Your task to perform on an android device: snooze an email in the gmail app Image 0: 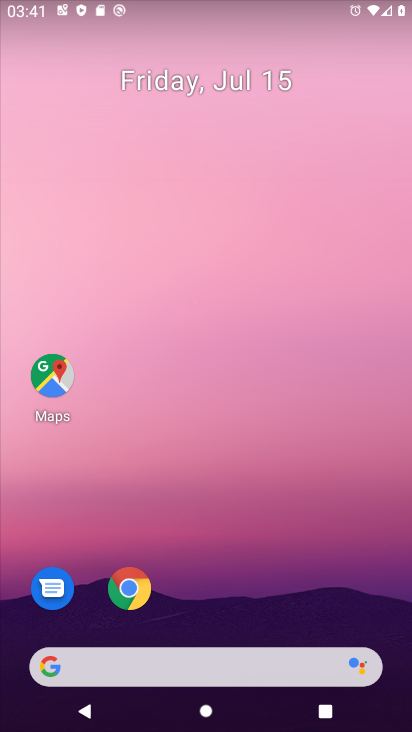
Step 0: drag from (206, 658) to (187, 184)
Your task to perform on an android device: snooze an email in the gmail app Image 1: 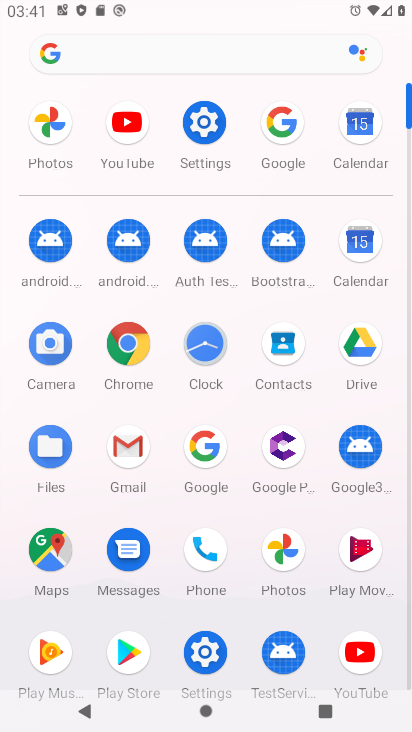
Step 1: click (129, 447)
Your task to perform on an android device: snooze an email in the gmail app Image 2: 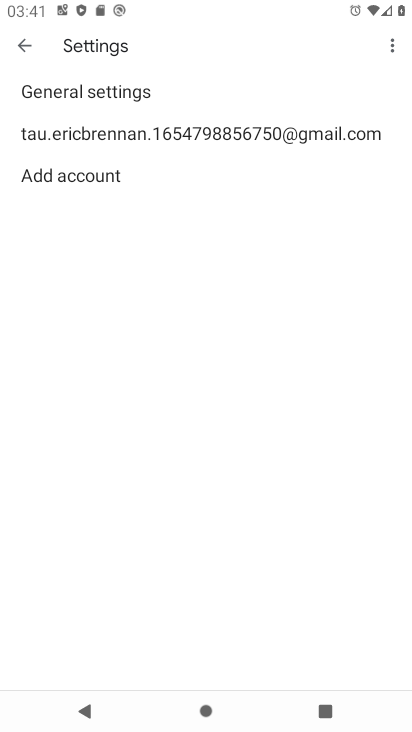
Step 2: press back button
Your task to perform on an android device: snooze an email in the gmail app Image 3: 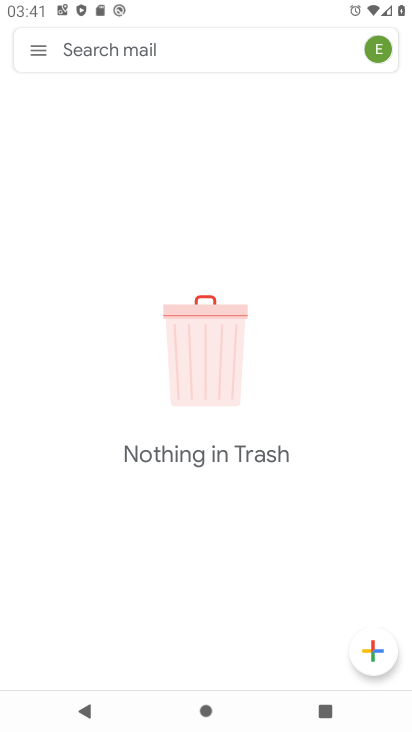
Step 3: click (33, 49)
Your task to perform on an android device: snooze an email in the gmail app Image 4: 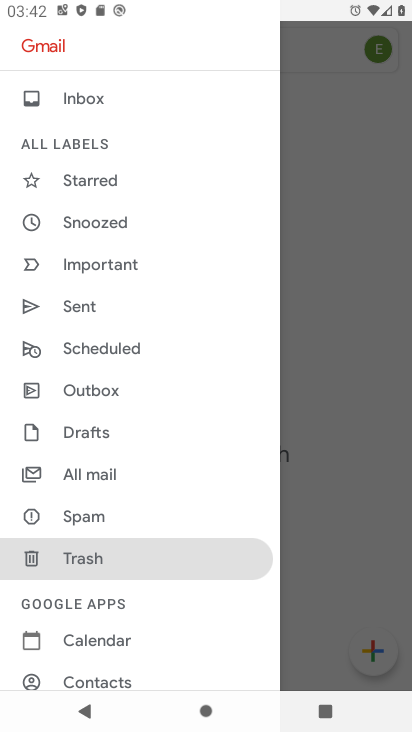
Step 4: click (66, 90)
Your task to perform on an android device: snooze an email in the gmail app Image 5: 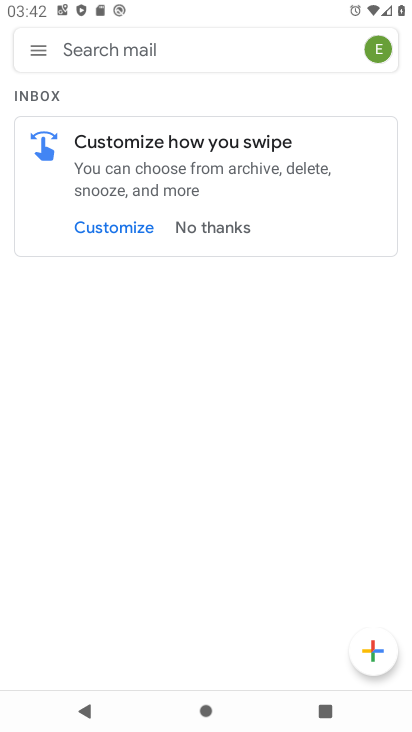
Step 5: click (38, 48)
Your task to perform on an android device: snooze an email in the gmail app Image 6: 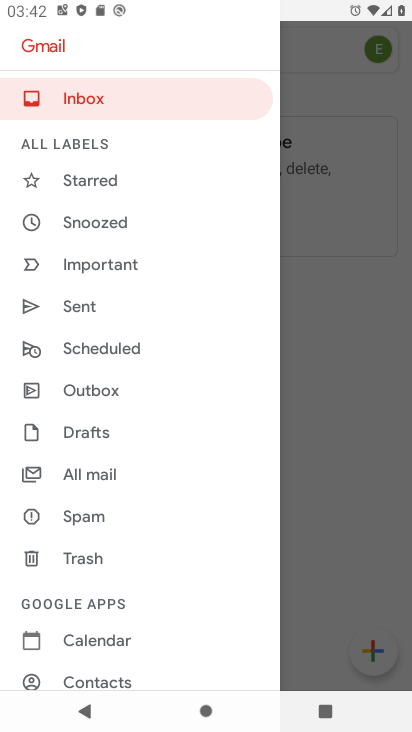
Step 6: click (81, 176)
Your task to perform on an android device: snooze an email in the gmail app Image 7: 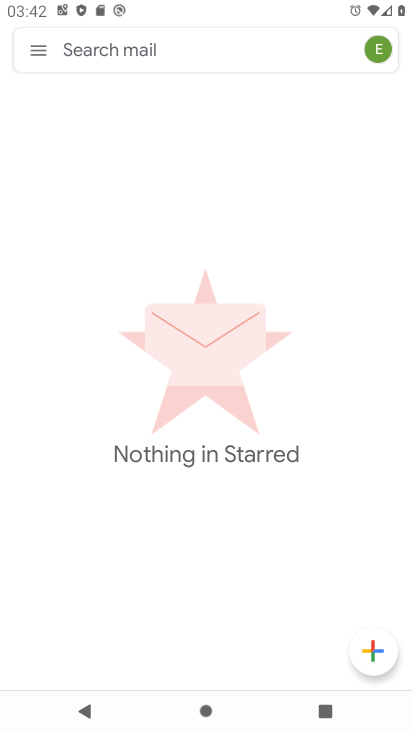
Step 7: click (39, 56)
Your task to perform on an android device: snooze an email in the gmail app Image 8: 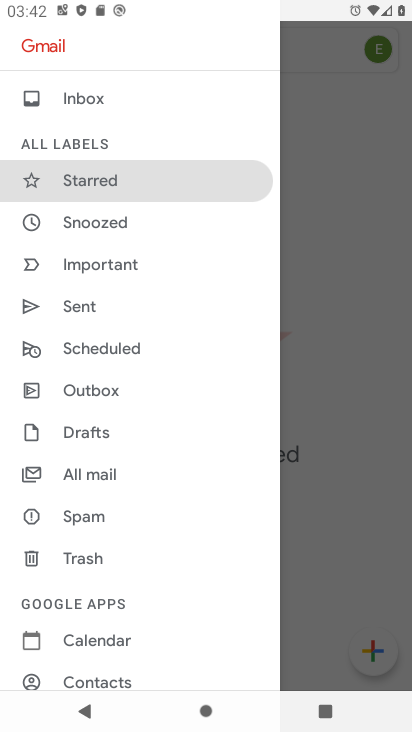
Step 8: click (80, 222)
Your task to perform on an android device: snooze an email in the gmail app Image 9: 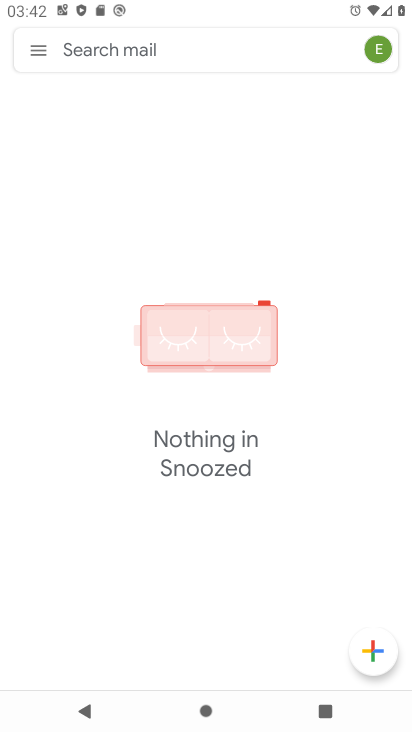
Step 9: click (34, 52)
Your task to perform on an android device: snooze an email in the gmail app Image 10: 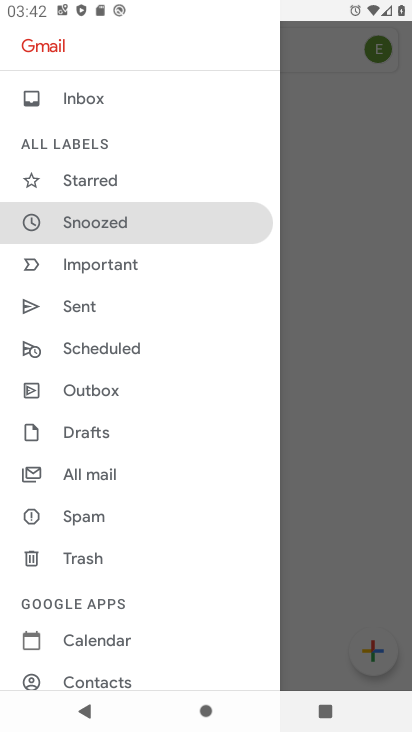
Step 10: click (94, 269)
Your task to perform on an android device: snooze an email in the gmail app Image 11: 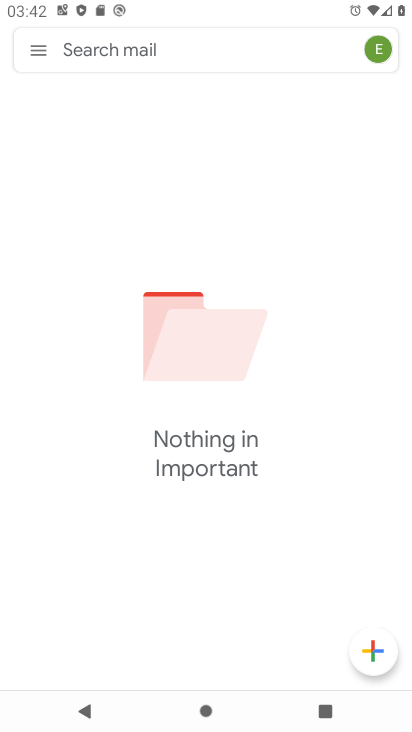
Step 11: click (35, 52)
Your task to perform on an android device: snooze an email in the gmail app Image 12: 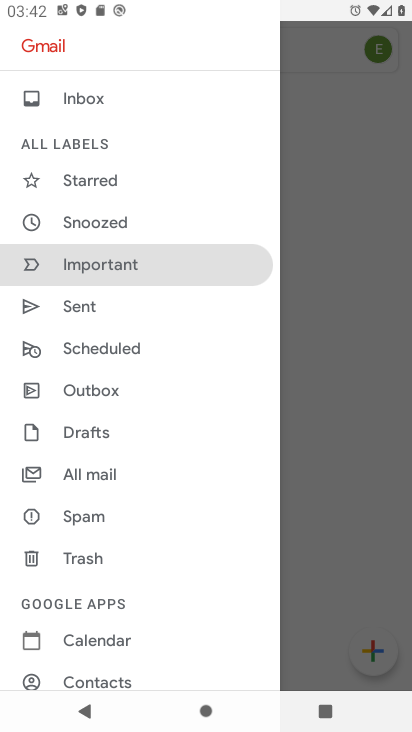
Step 12: click (85, 301)
Your task to perform on an android device: snooze an email in the gmail app Image 13: 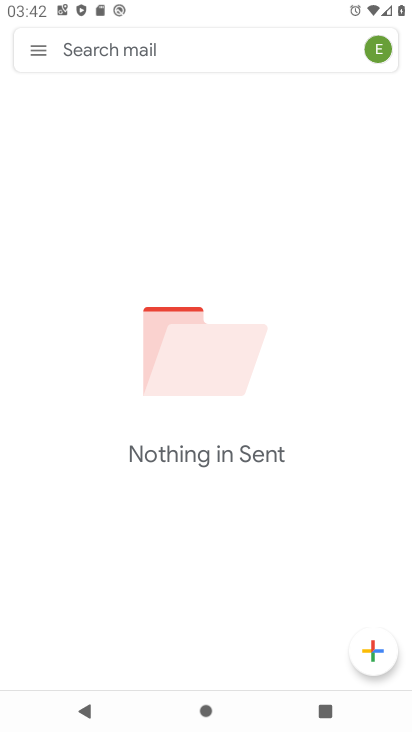
Step 13: click (34, 52)
Your task to perform on an android device: snooze an email in the gmail app Image 14: 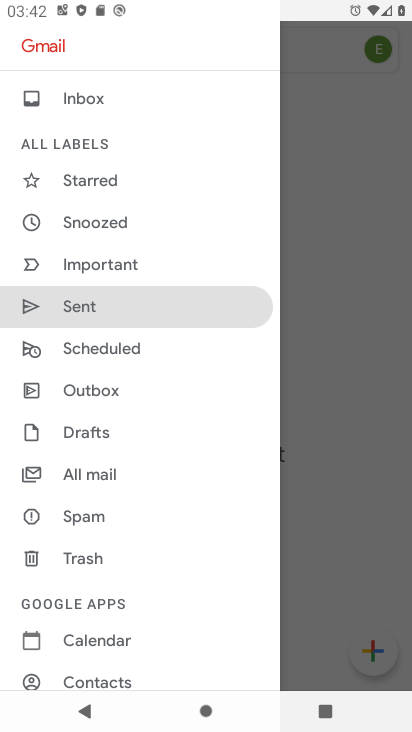
Step 14: click (74, 344)
Your task to perform on an android device: snooze an email in the gmail app Image 15: 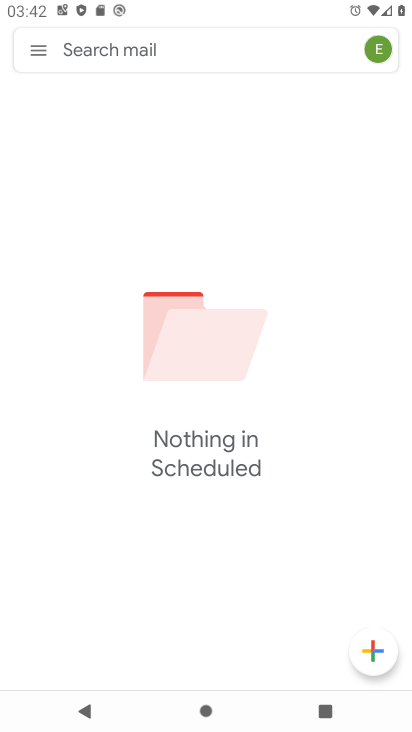
Step 15: click (44, 52)
Your task to perform on an android device: snooze an email in the gmail app Image 16: 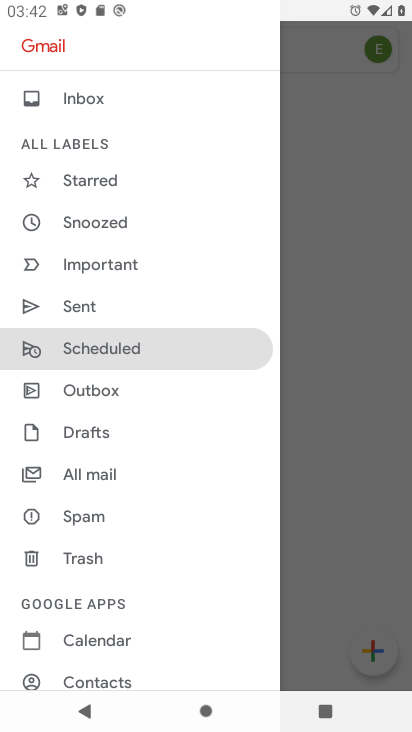
Step 16: click (79, 392)
Your task to perform on an android device: snooze an email in the gmail app Image 17: 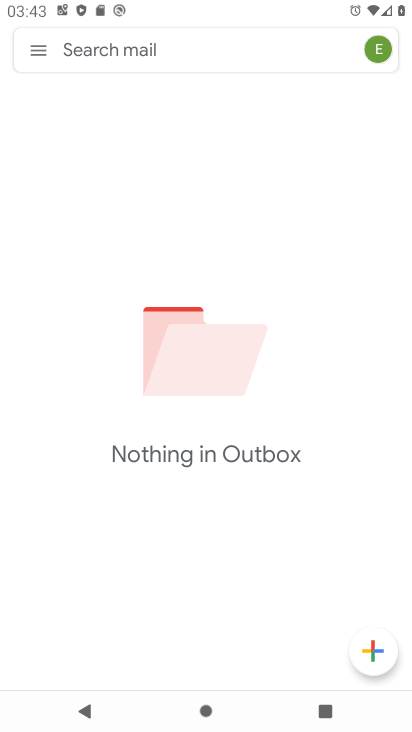
Step 17: click (46, 50)
Your task to perform on an android device: snooze an email in the gmail app Image 18: 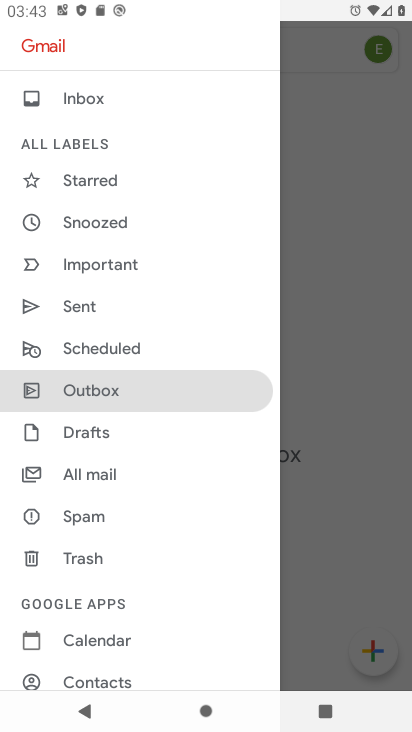
Step 18: click (92, 431)
Your task to perform on an android device: snooze an email in the gmail app Image 19: 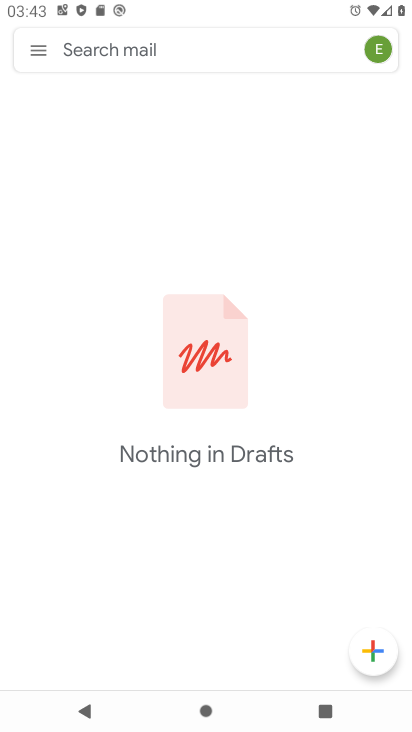
Step 19: task complete